Your task to perform on an android device: open app "Google Maps" Image 0: 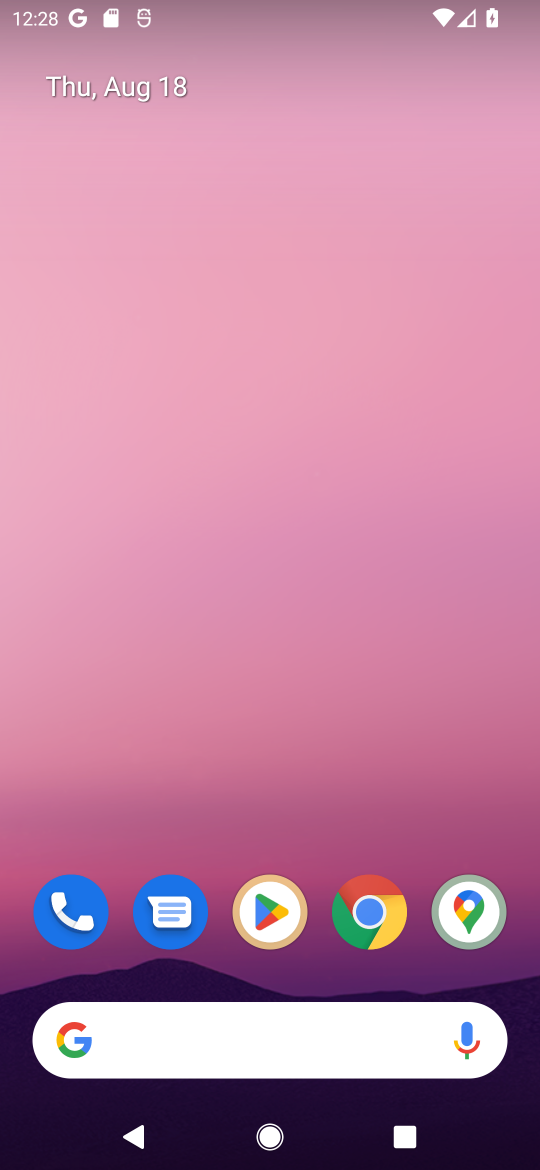
Step 0: click (473, 901)
Your task to perform on an android device: open app "Google Maps" Image 1: 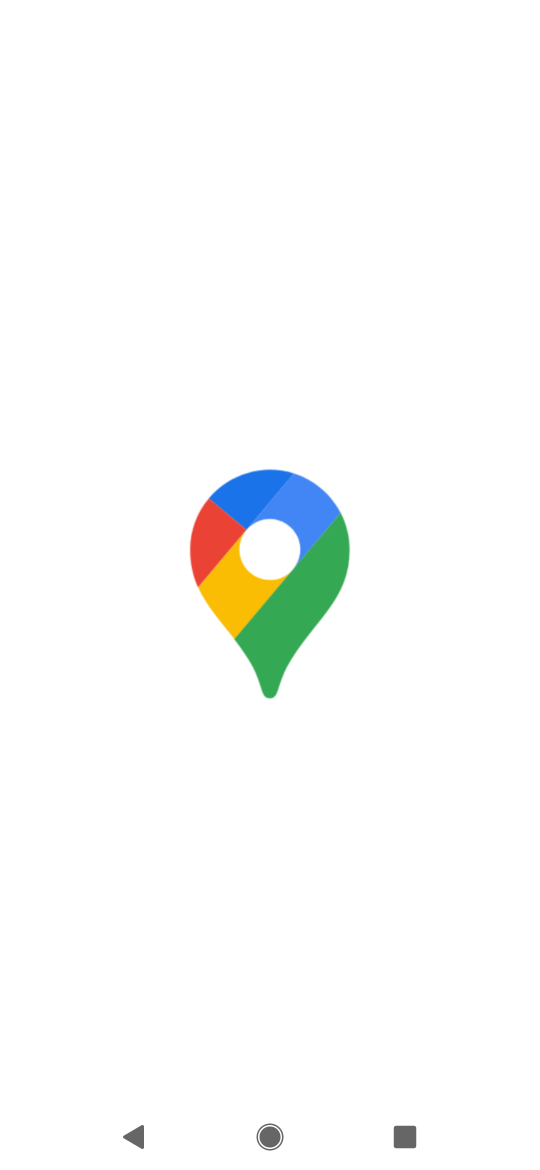
Step 1: task complete